Your task to perform on an android device: set default search engine in the chrome app Image 0: 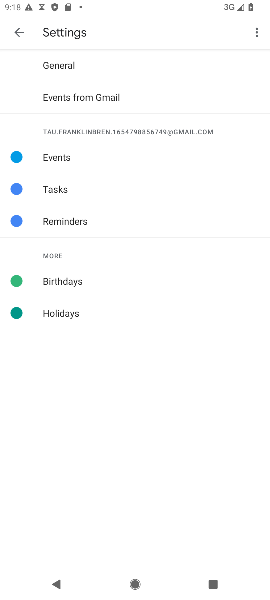
Step 0: press home button
Your task to perform on an android device: set default search engine in the chrome app Image 1: 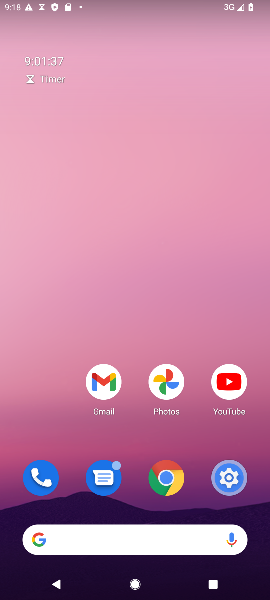
Step 1: drag from (189, 336) to (138, 39)
Your task to perform on an android device: set default search engine in the chrome app Image 2: 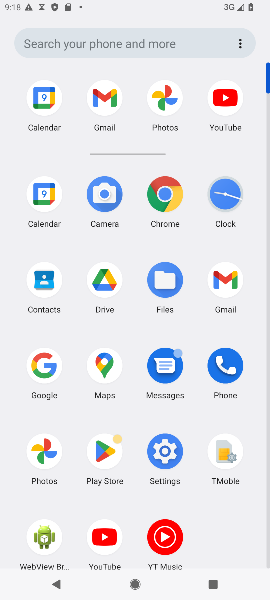
Step 2: click (159, 205)
Your task to perform on an android device: set default search engine in the chrome app Image 3: 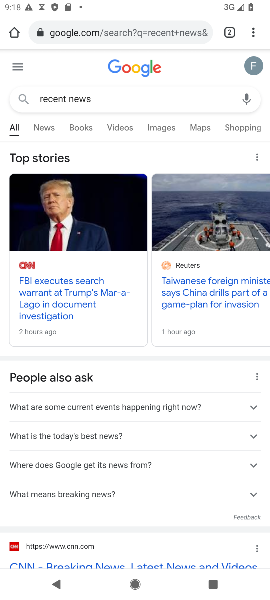
Step 3: click (253, 32)
Your task to perform on an android device: set default search engine in the chrome app Image 4: 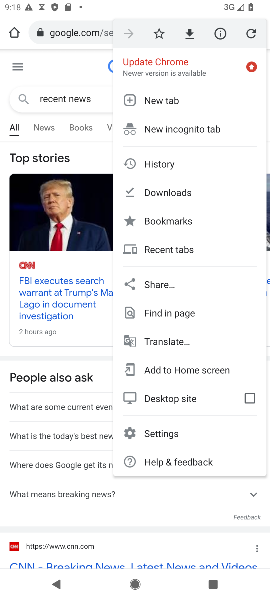
Step 4: click (172, 445)
Your task to perform on an android device: set default search engine in the chrome app Image 5: 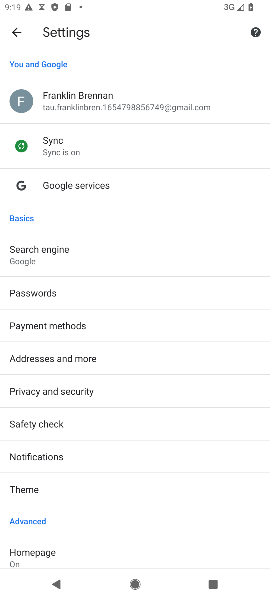
Step 5: click (73, 263)
Your task to perform on an android device: set default search engine in the chrome app Image 6: 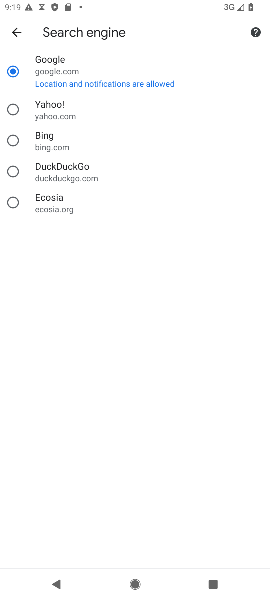
Step 6: click (122, 110)
Your task to perform on an android device: set default search engine in the chrome app Image 7: 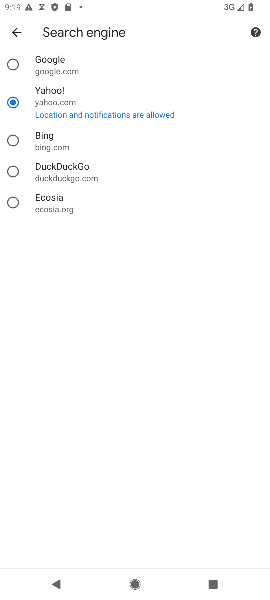
Step 7: task complete